Your task to perform on an android device: turn off notifications in google photos Image 0: 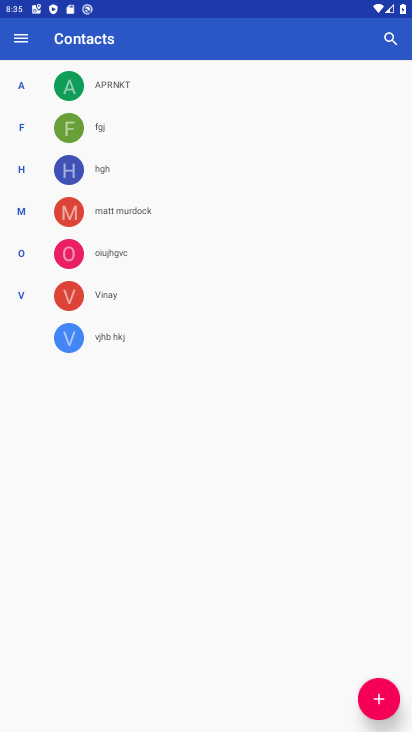
Step 0: press home button
Your task to perform on an android device: turn off notifications in google photos Image 1: 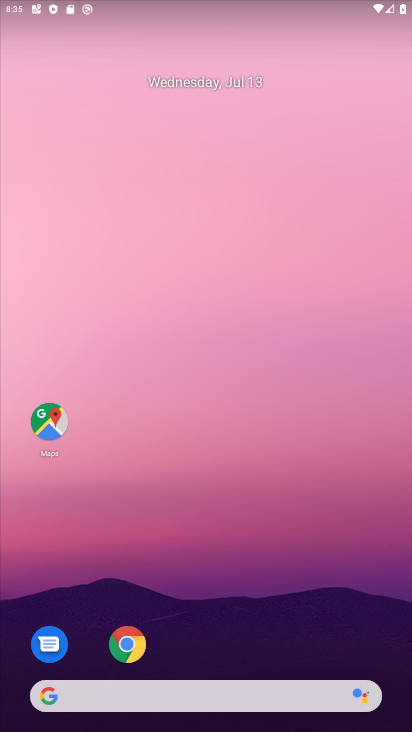
Step 1: drag from (217, 714) to (213, 73)
Your task to perform on an android device: turn off notifications in google photos Image 2: 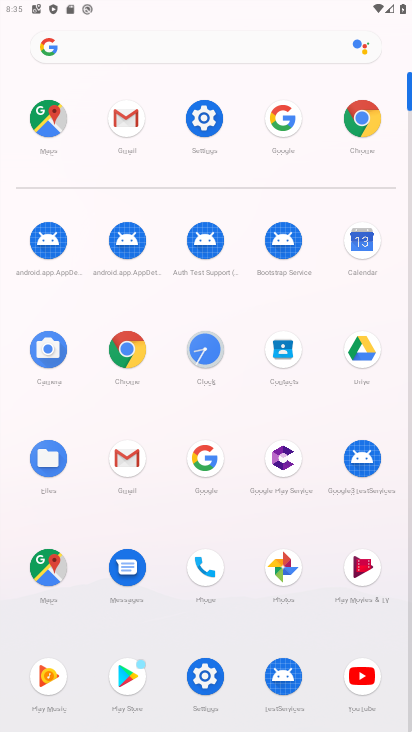
Step 2: click (287, 567)
Your task to perform on an android device: turn off notifications in google photos Image 3: 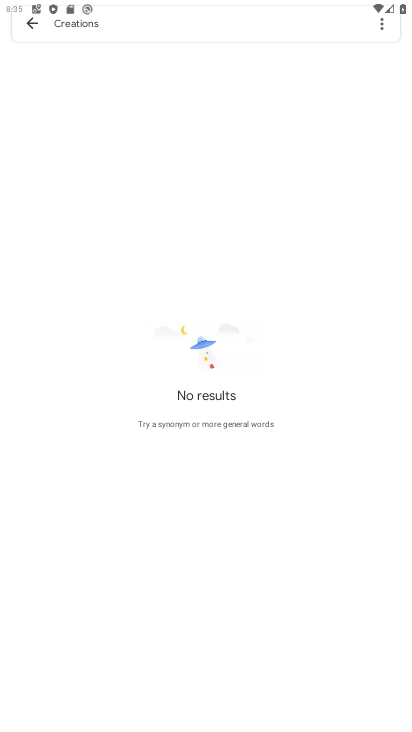
Step 3: click (33, 18)
Your task to perform on an android device: turn off notifications in google photos Image 4: 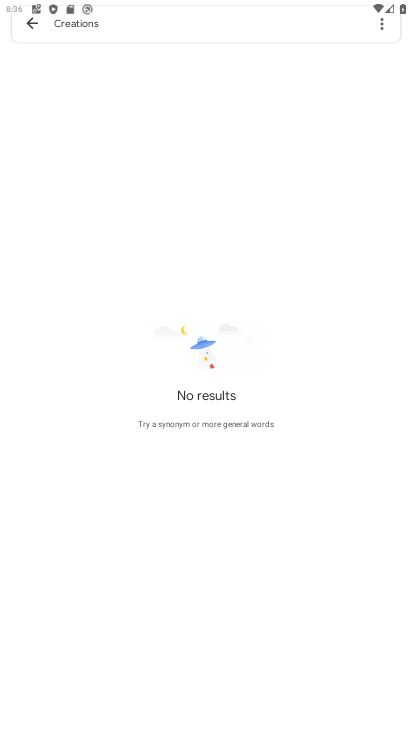
Step 4: click (30, 19)
Your task to perform on an android device: turn off notifications in google photos Image 5: 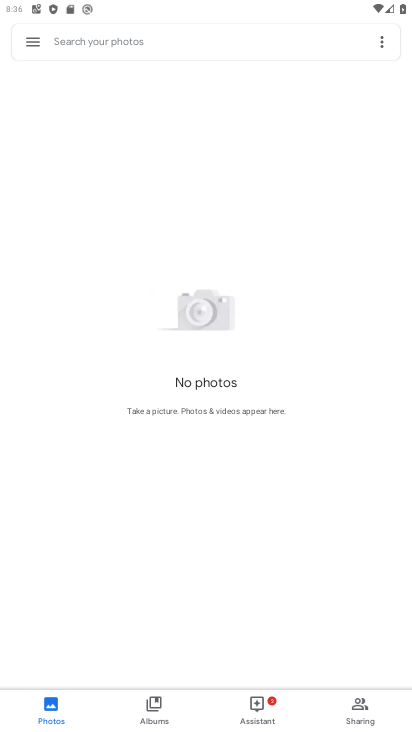
Step 5: click (39, 44)
Your task to perform on an android device: turn off notifications in google photos Image 6: 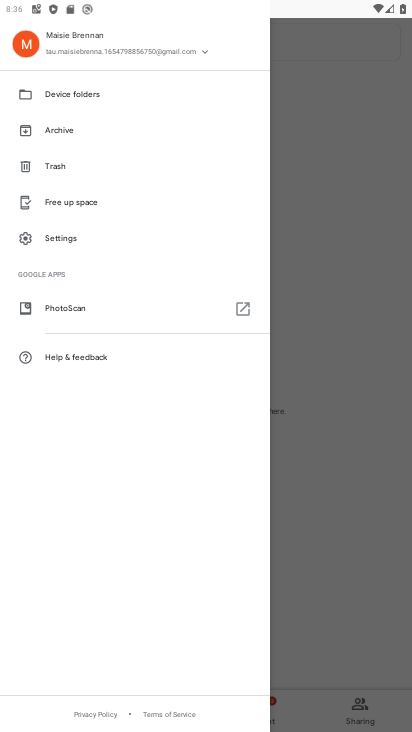
Step 6: click (63, 236)
Your task to perform on an android device: turn off notifications in google photos Image 7: 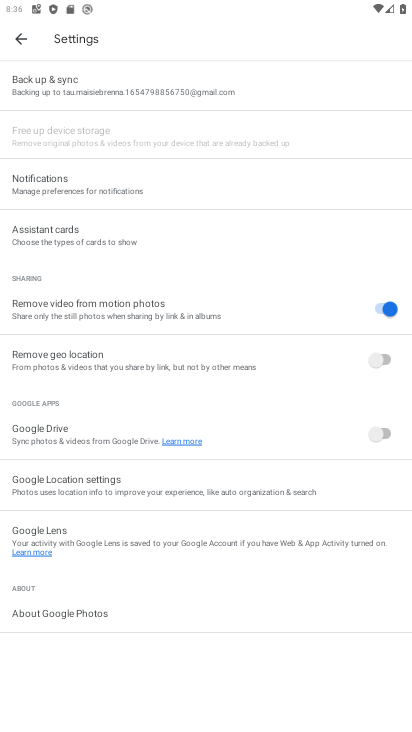
Step 7: click (76, 190)
Your task to perform on an android device: turn off notifications in google photos Image 8: 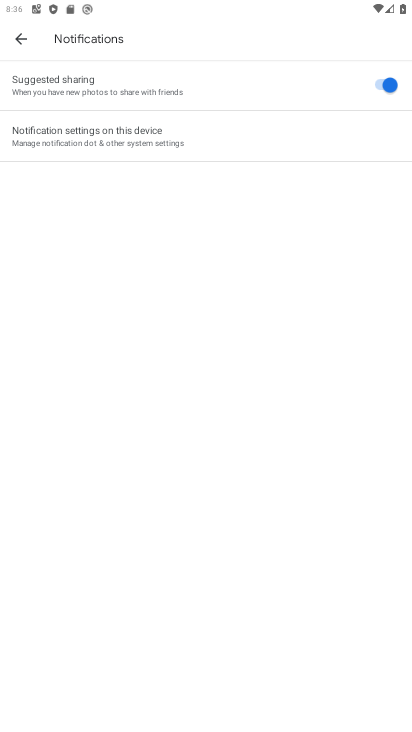
Step 8: click (204, 128)
Your task to perform on an android device: turn off notifications in google photos Image 9: 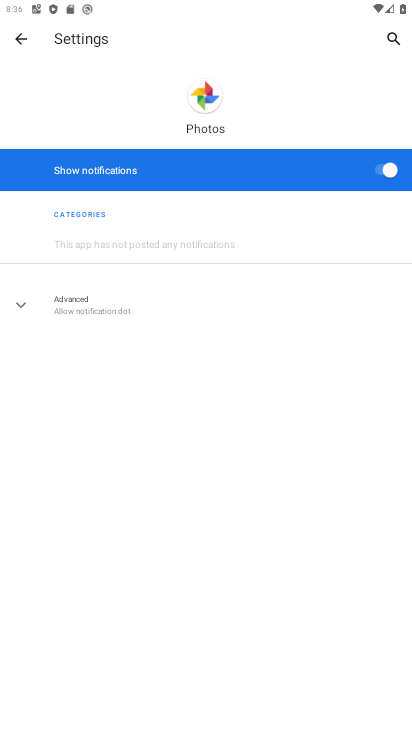
Step 9: click (385, 168)
Your task to perform on an android device: turn off notifications in google photos Image 10: 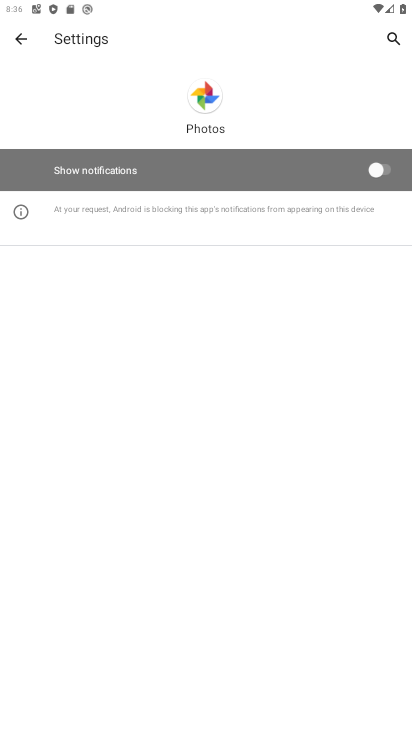
Step 10: task complete